Your task to perform on an android device: What's the weather? Image 0: 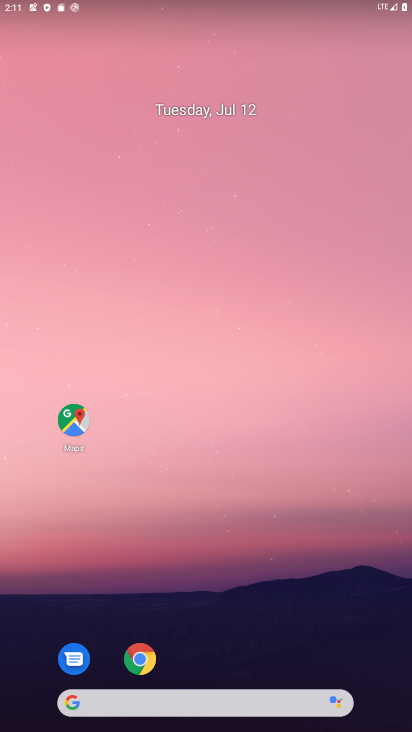
Step 0: drag from (194, 730) to (176, 256)
Your task to perform on an android device: What's the weather? Image 1: 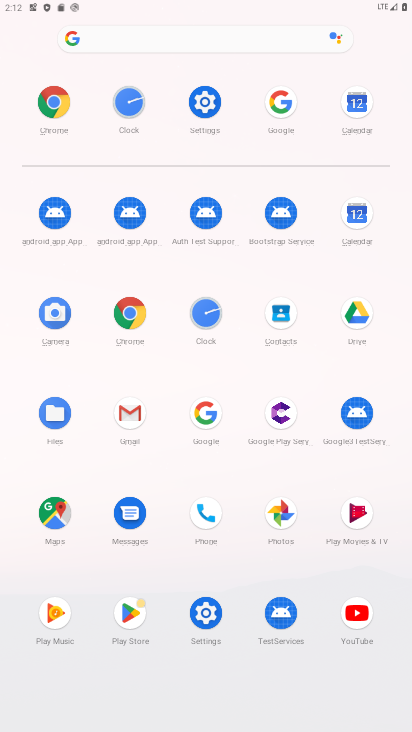
Step 1: click (201, 411)
Your task to perform on an android device: What's the weather? Image 2: 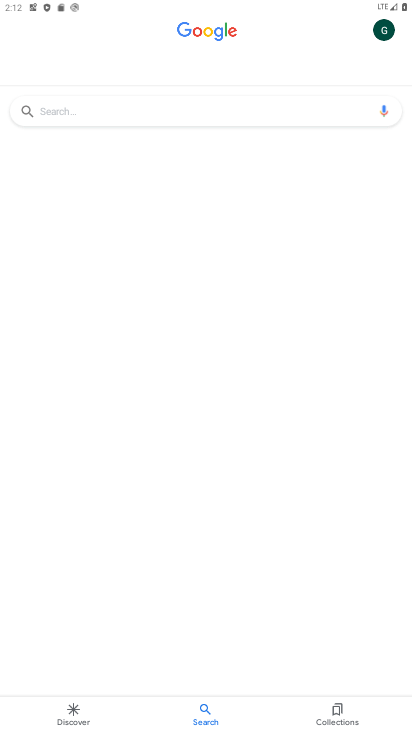
Step 2: click (141, 101)
Your task to perform on an android device: What's the weather? Image 3: 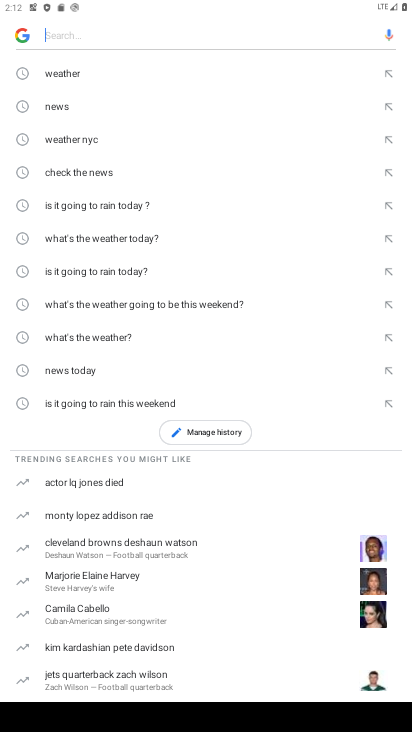
Step 3: click (71, 71)
Your task to perform on an android device: What's the weather? Image 4: 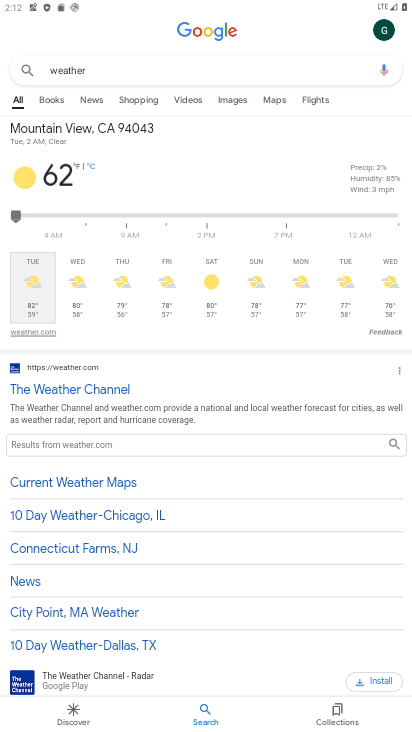
Step 4: task complete